Your task to perform on an android device: install app "Google Drive" Image 0: 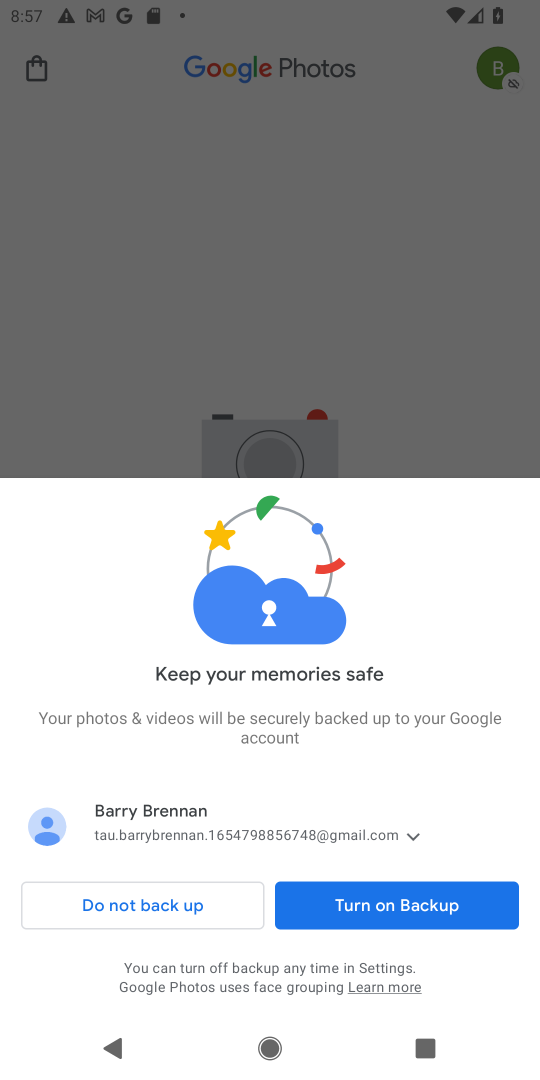
Step 0: press home button
Your task to perform on an android device: install app "Google Drive" Image 1: 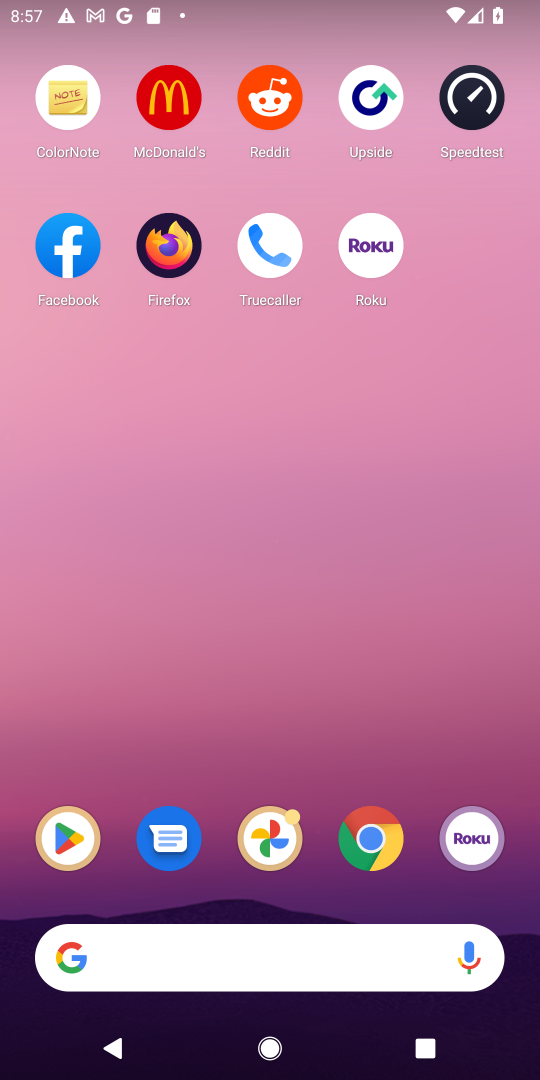
Step 1: drag from (351, 726) to (408, 92)
Your task to perform on an android device: install app "Google Drive" Image 2: 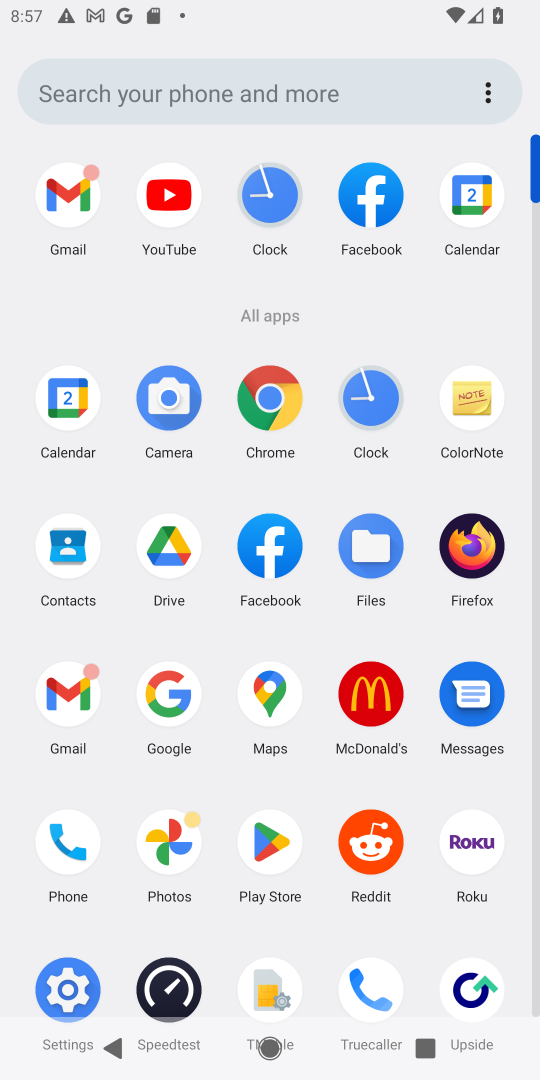
Step 2: click (265, 845)
Your task to perform on an android device: install app "Google Drive" Image 3: 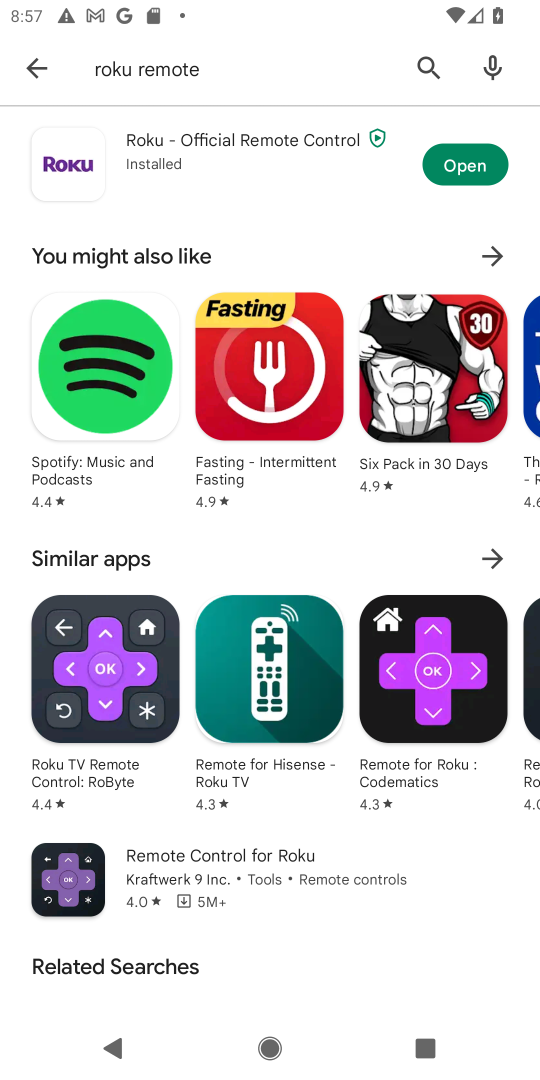
Step 3: click (429, 56)
Your task to perform on an android device: install app "Google Drive" Image 4: 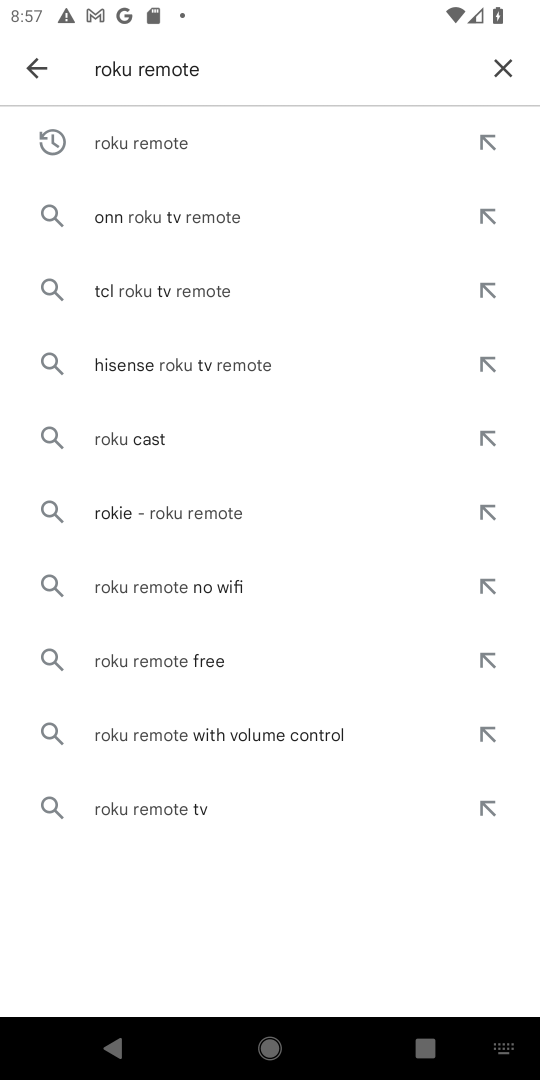
Step 4: click (507, 70)
Your task to perform on an android device: install app "Google Drive" Image 5: 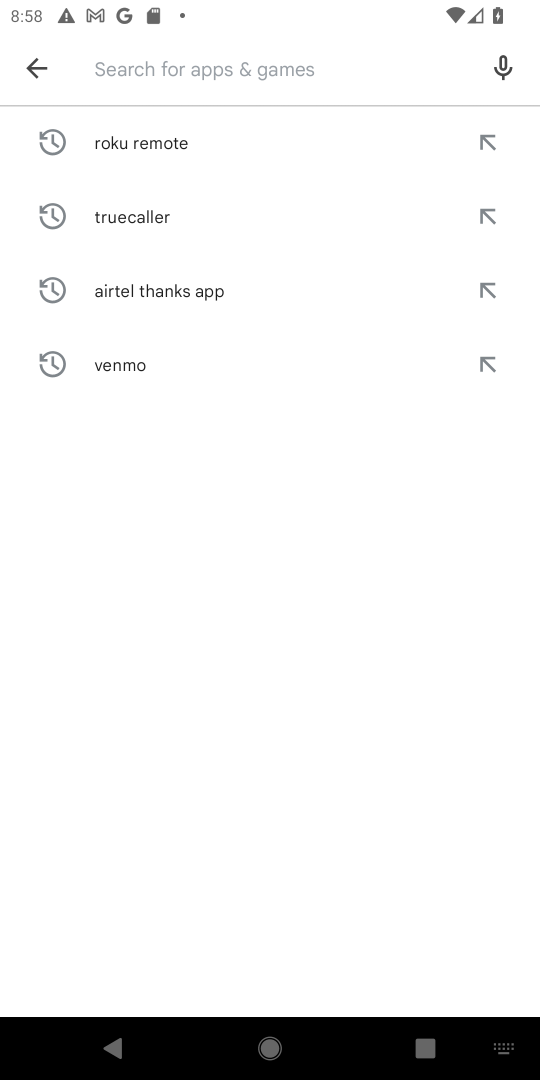
Step 5: type "google drive"
Your task to perform on an android device: install app "Google Drive" Image 6: 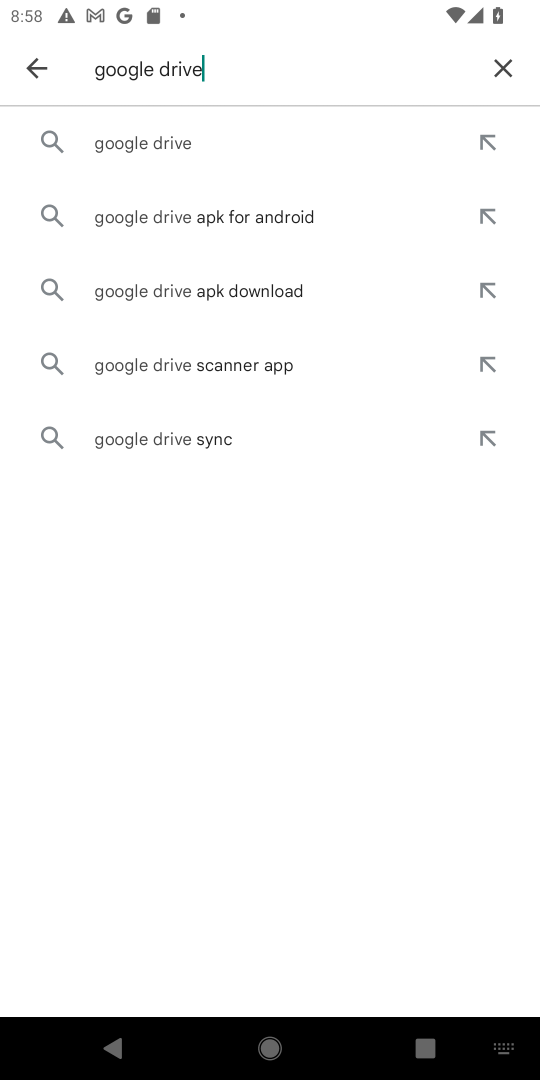
Step 6: click (229, 148)
Your task to perform on an android device: install app "Google Drive" Image 7: 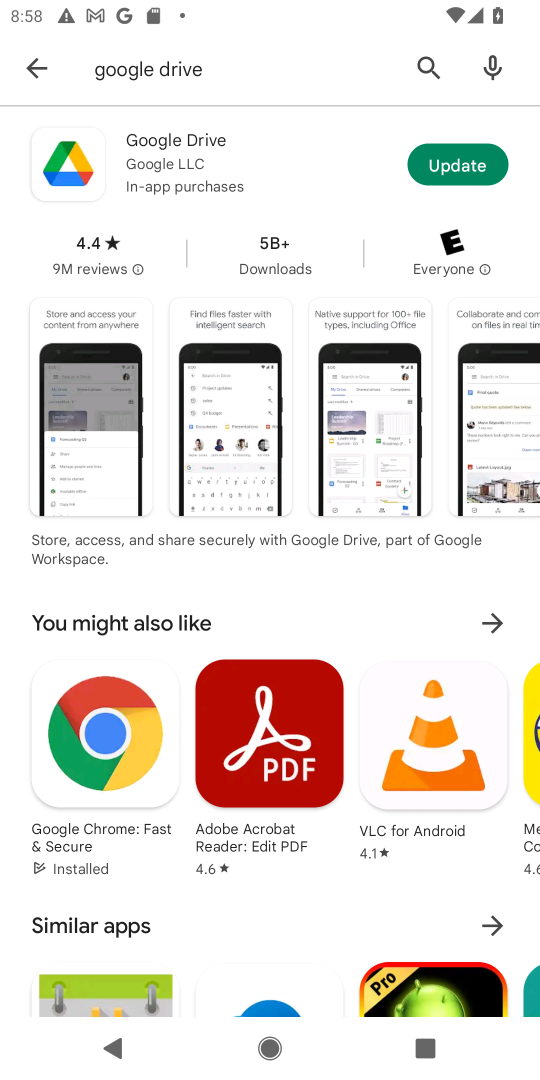
Step 7: task complete